Your task to perform on an android device: turn on priority inbox in the gmail app Image 0: 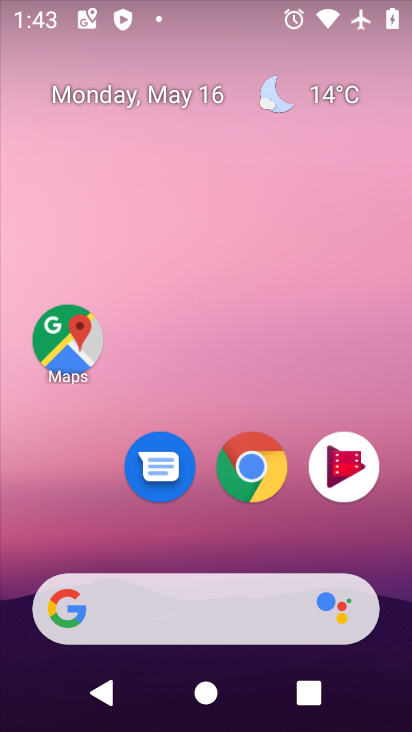
Step 0: drag from (227, 547) to (269, 233)
Your task to perform on an android device: turn on priority inbox in the gmail app Image 1: 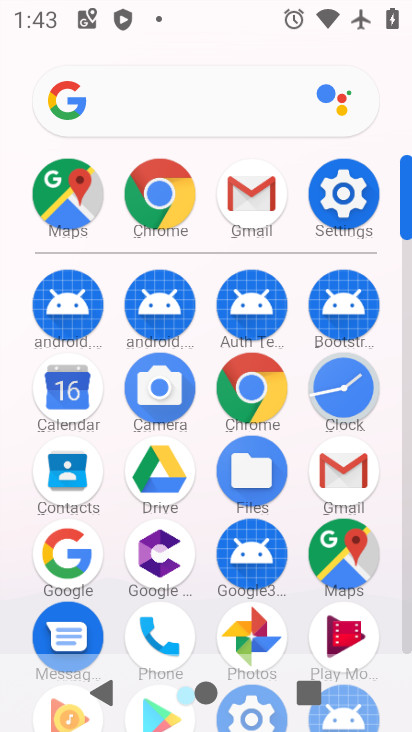
Step 1: click (337, 483)
Your task to perform on an android device: turn on priority inbox in the gmail app Image 2: 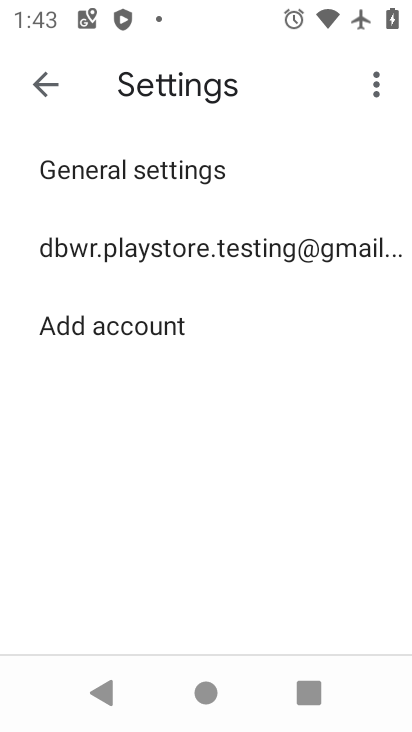
Step 2: click (198, 240)
Your task to perform on an android device: turn on priority inbox in the gmail app Image 3: 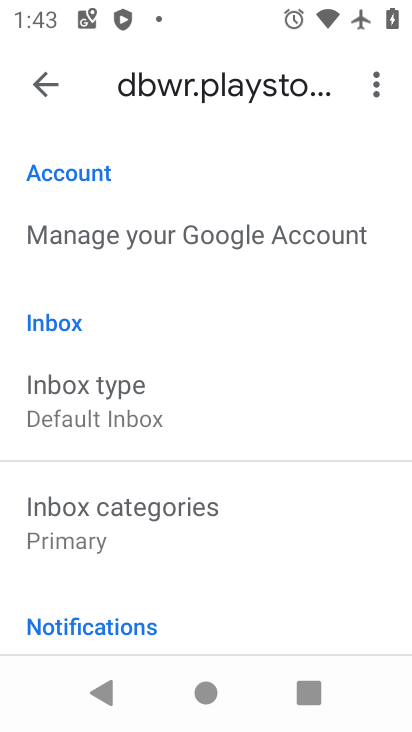
Step 3: click (96, 419)
Your task to perform on an android device: turn on priority inbox in the gmail app Image 4: 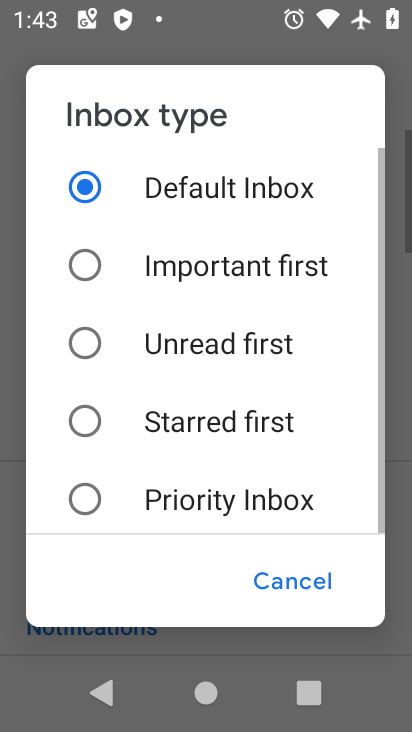
Step 4: click (203, 487)
Your task to perform on an android device: turn on priority inbox in the gmail app Image 5: 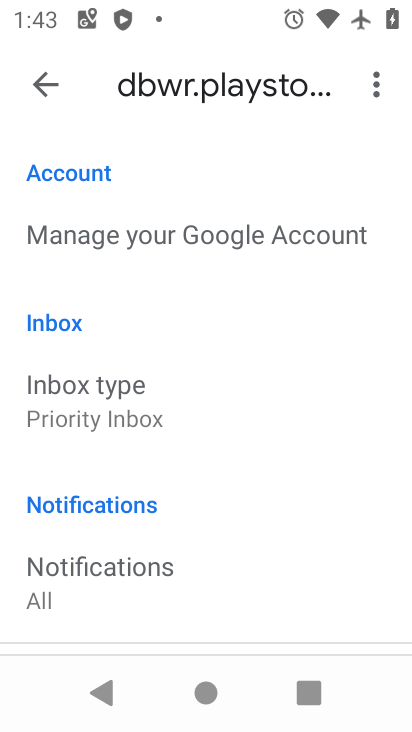
Step 5: task complete